Your task to perform on an android device: turn smart compose on in the gmail app Image 0: 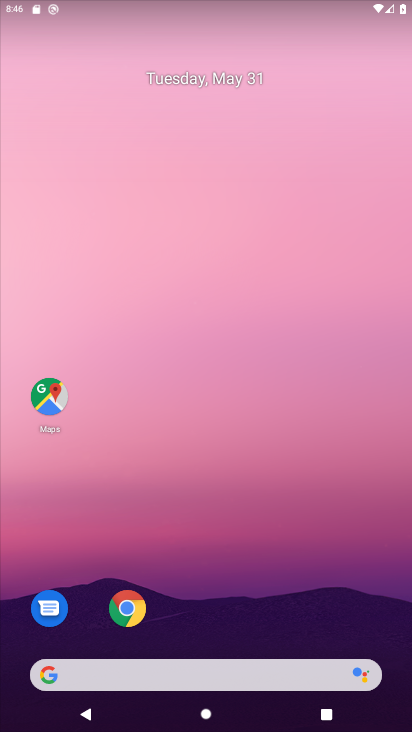
Step 0: drag from (285, 585) to (255, 57)
Your task to perform on an android device: turn smart compose on in the gmail app Image 1: 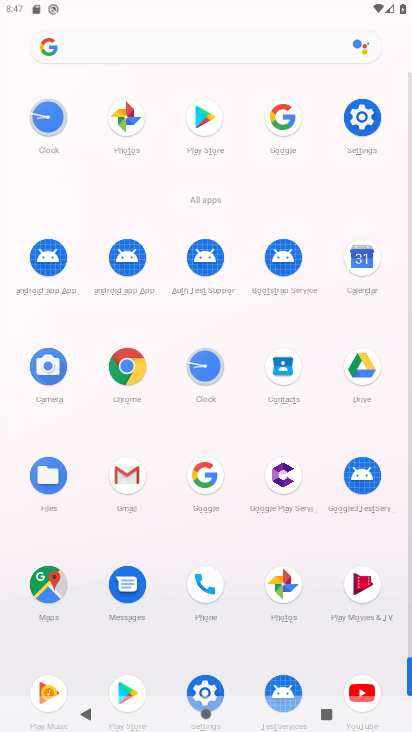
Step 1: click (126, 474)
Your task to perform on an android device: turn smart compose on in the gmail app Image 2: 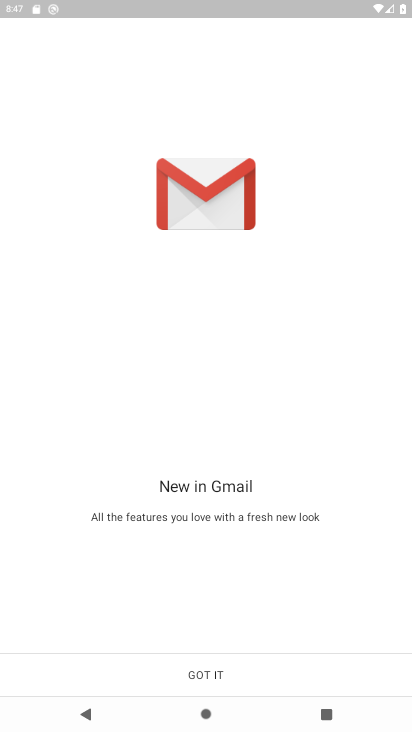
Step 2: click (206, 671)
Your task to perform on an android device: turn smart compose on in the gmail app Image 3: 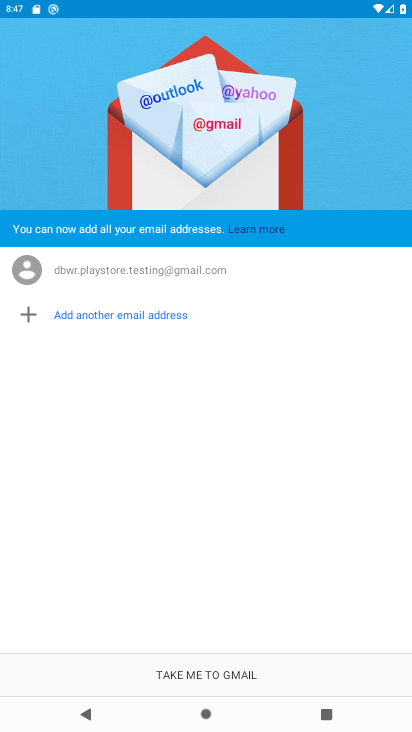
Step 3: click (206, 671)
Your task to perform on an android device: turn smart compose on in the gmail app Image 4: 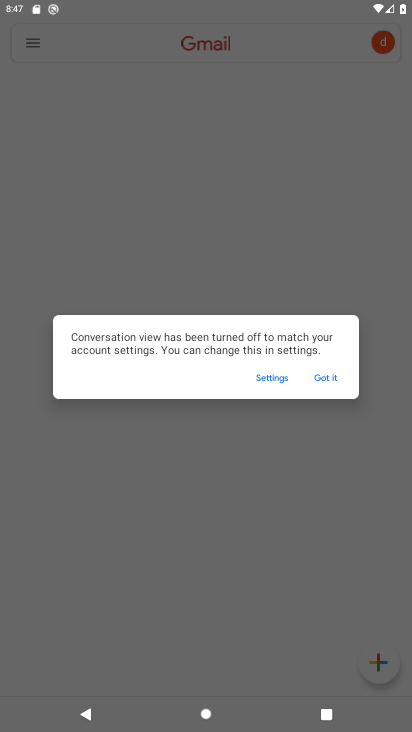
Step 4: click (321, 377)
Your task to perform on an android device: turn smart compose on in the gmail app Image 5: 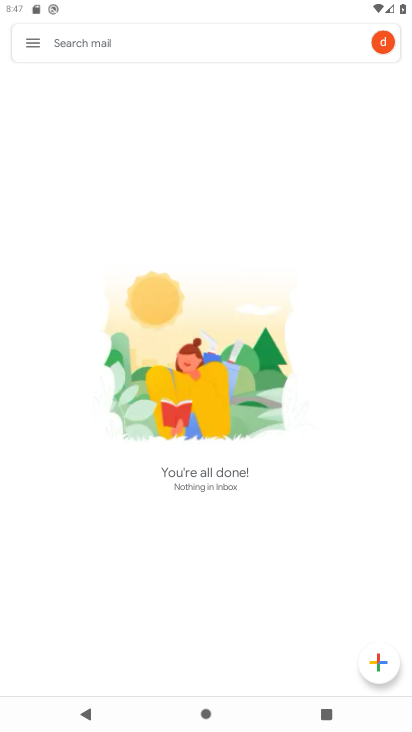
Step 5: click (31, 40)
Your task to perform on an android device: turn smart compose on in the gmail app Image 6: 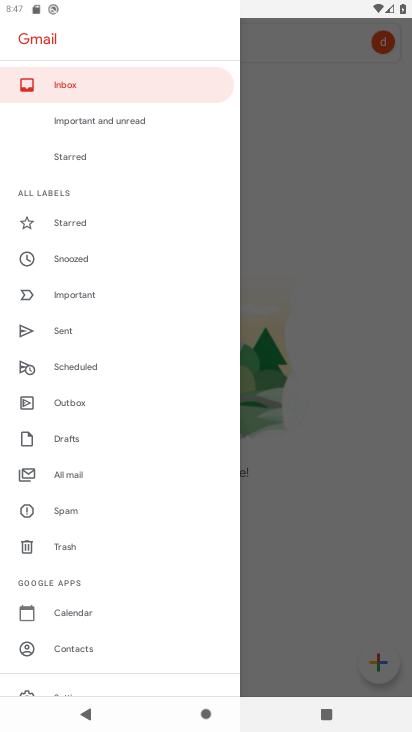
Step 6: drag from (88, 525) to (112, 441)
Your task to perform on an android device: turn smart compose on in the gmail app Image 7: 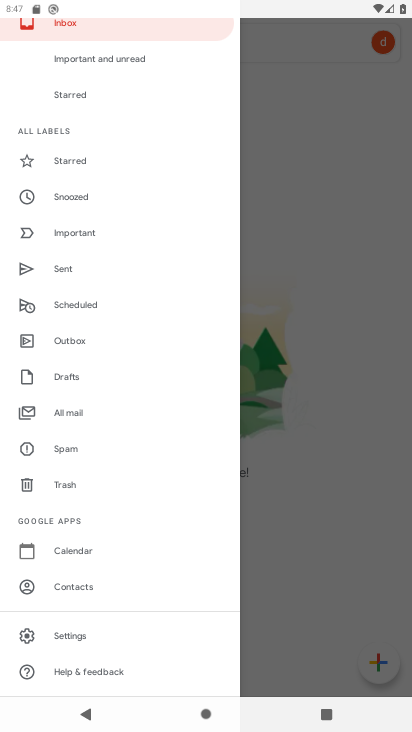
Step 7: click (67, 634)
Your task to perform on an android device: turn smart compose on in the gmail app Image 8: 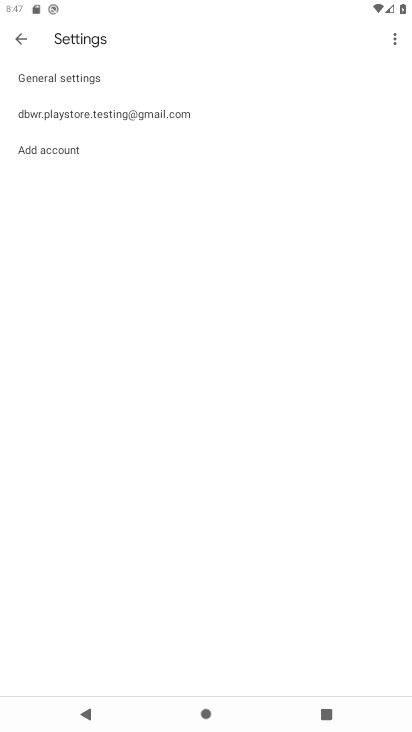
Step 8: click (70, 109)
Your task to perform on an android device: turn smart compose on in the gmail app Image 9: 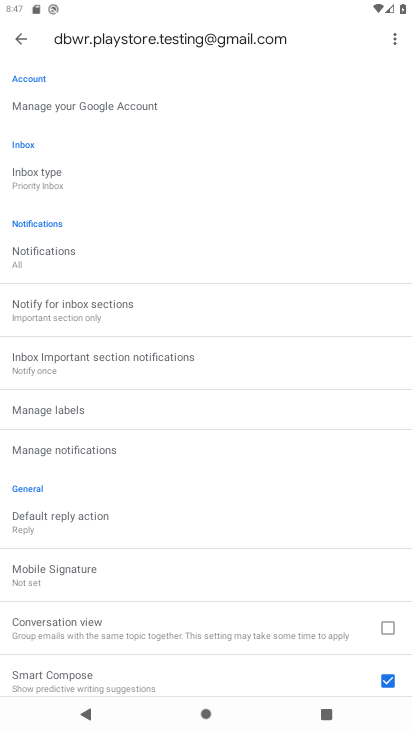
Step 9: task complete